Your task to perform on an android device: empty trash in google photos Image 0: 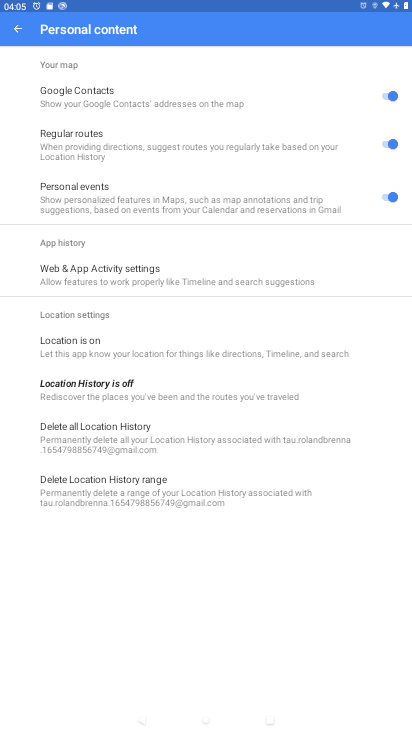
Step 0: press home button
Your task to perform on an android device: empty trash in google photos Image 1: 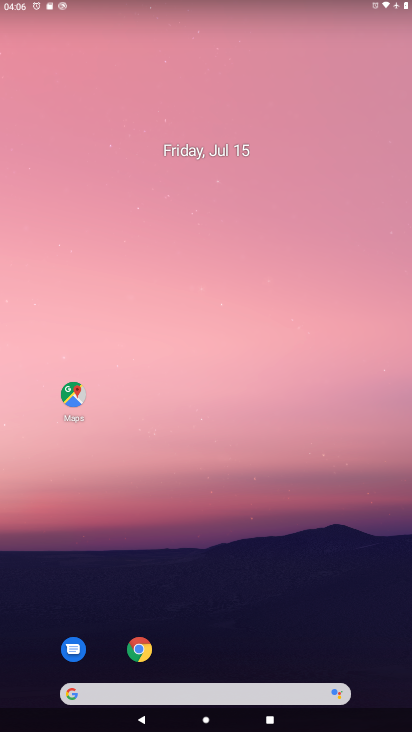
Step 1: drag from (382, 674) to (369, 107)
Your task to perform on an android device: empty trash in google photos Image 2: 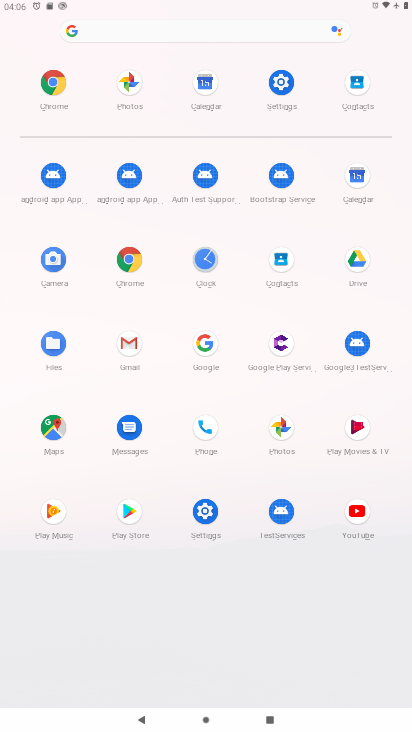
Step 2: click (279, 258)
Your task to perform on an android device: empty trash in google photos Image 3: 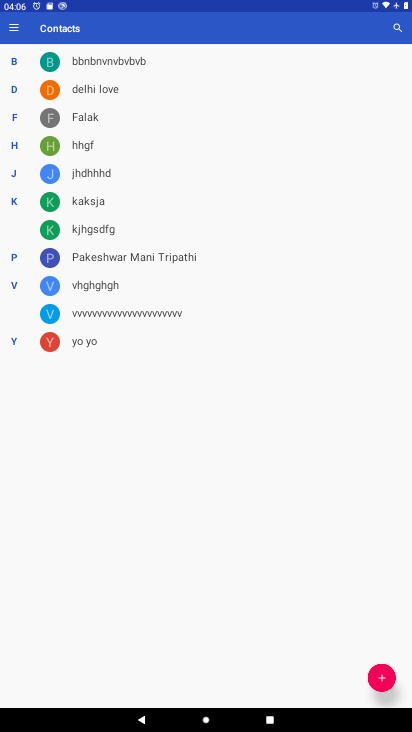
Step 3: press home button
Your task to perform on an android device: empty trash in google photos Image 4: 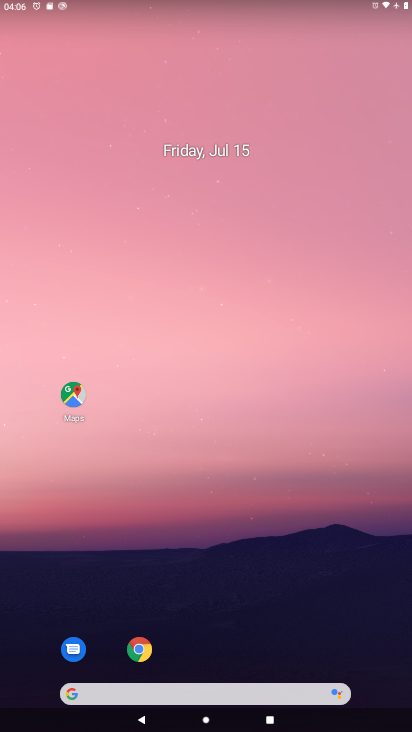
Step 4: drag from (386, 628) to (337, 62)
Your task to perform on an android device: empty trash in google photos Image 5: 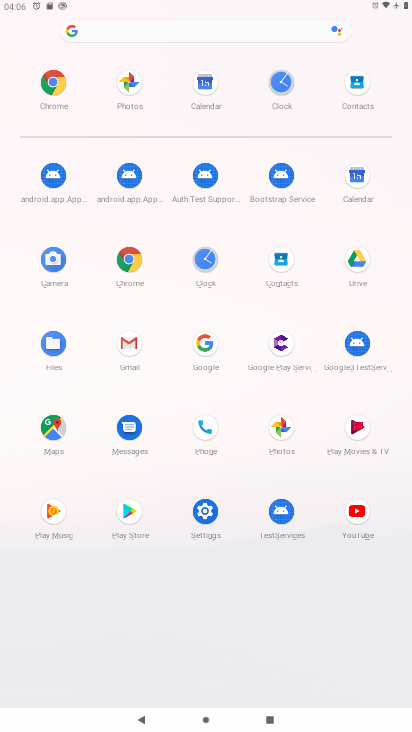
Step 5: click (281, 428)
Your task to perform on an android device: empty trash in google photos Image 6: 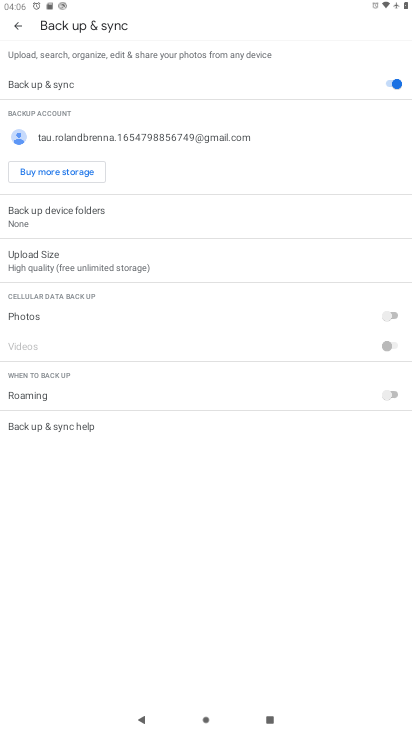
Step 6: press back button
Your task to perform on an android device: empty trash in google photos Image 7: 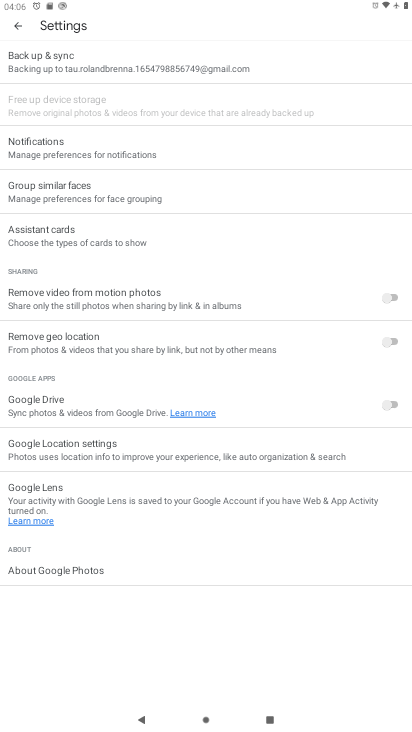
Step 7: press back button
Your task to perform on an android device: empty trash in google photos Image 8: 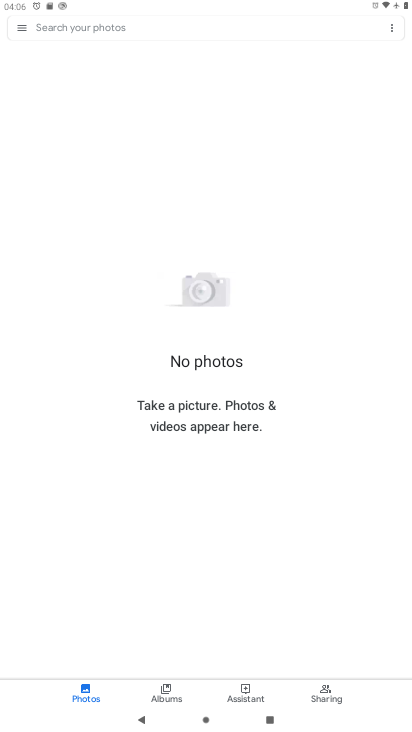
Step 8: click (22, 21)
Your task to perform on an android device: empty trash in google photos Image 9: 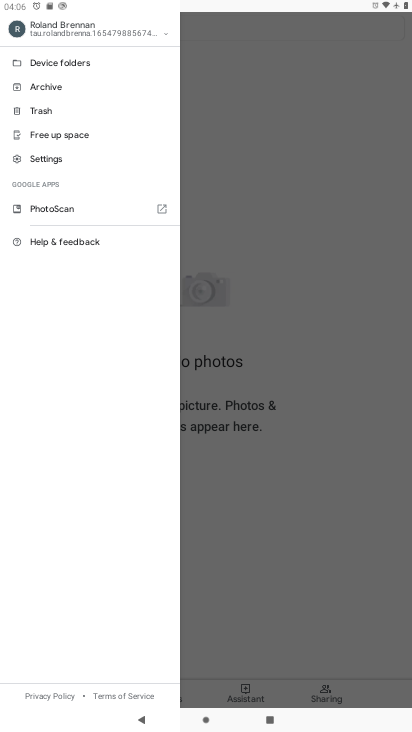
Step 9: click (34, 112)
Your task to perform on an android device: empty trash in google photos Image 10: 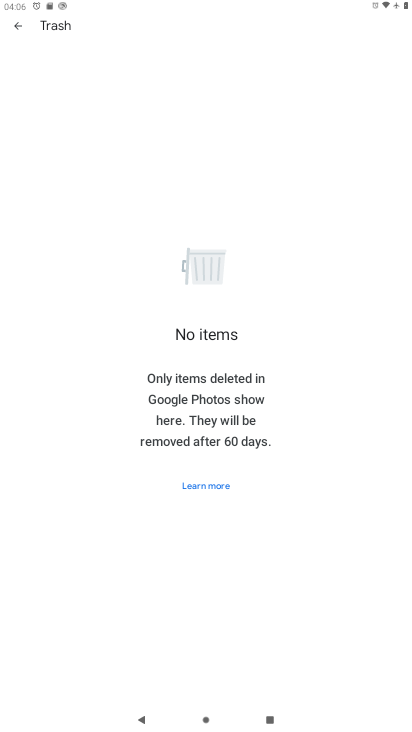
Step 10: task complete